Your task to perform on an android device: Check the news Image 0: 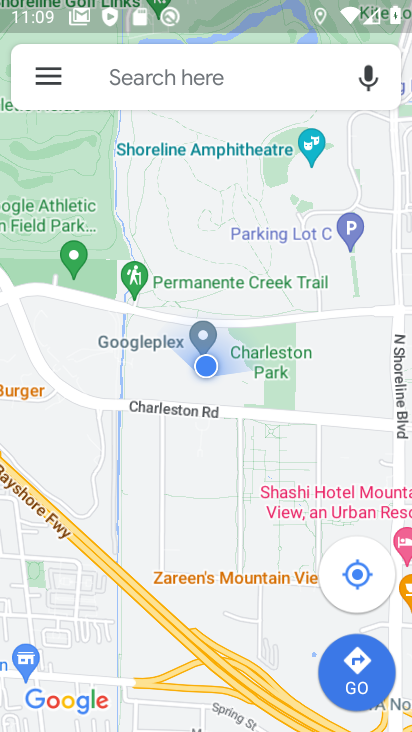
Step 0: press home button
Your task to perform on an android device: Check the news Image 1: 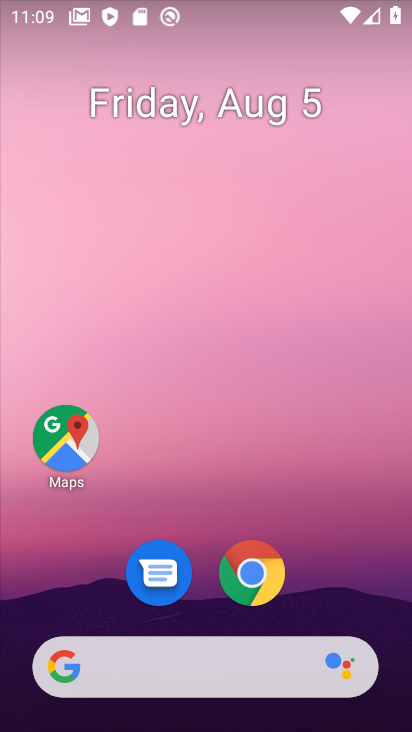
Step 1: click (241, 684)
Your task to perform on an android device: Check the news Image 2: 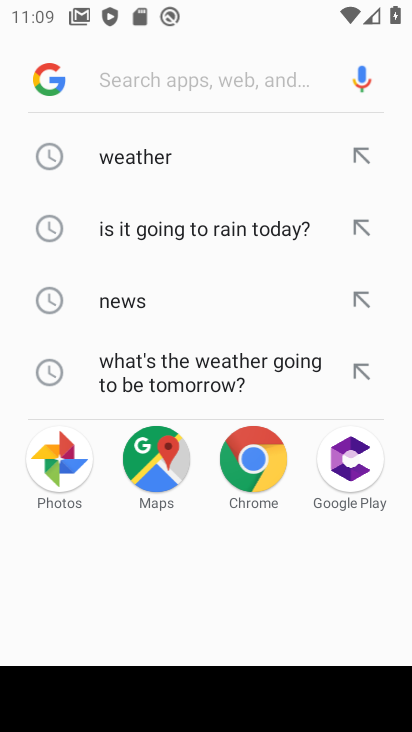
Step 2: type "Check the news"
Your task to perform on an android device: Check the news Image 3: 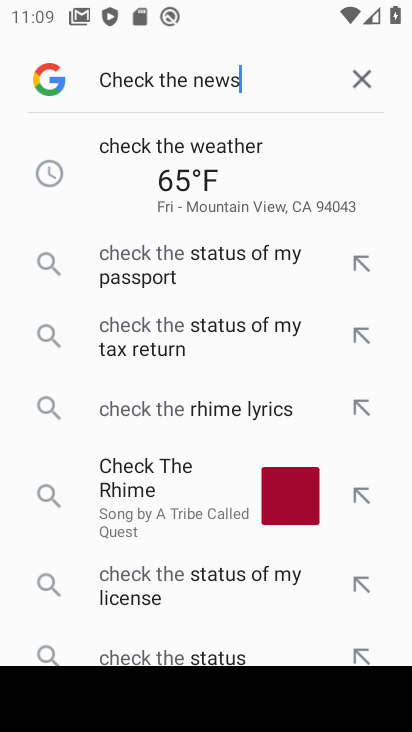
Step 3: type ""
Your task to perform on an android device: Check the news Image 4: 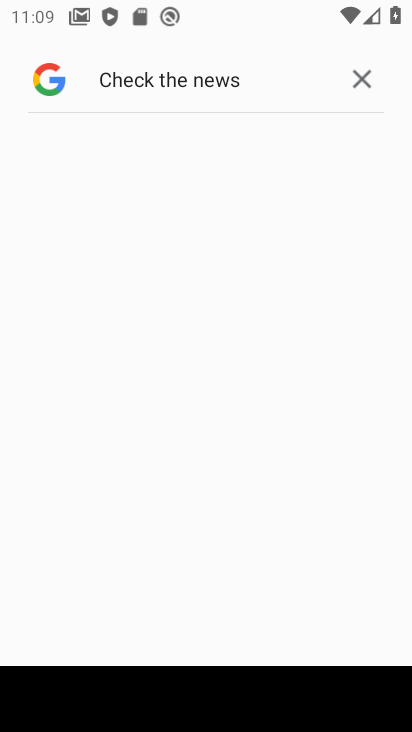
Step 4: press enter
Your task to perform on an android device: Check the news Image 5: 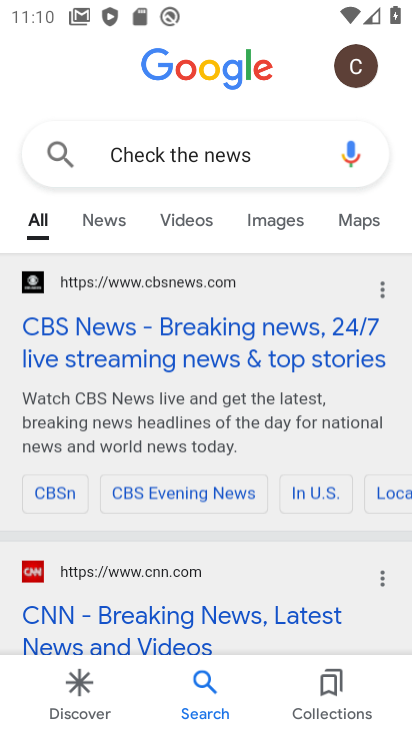
Step 5: task complete